Your task to perform on an android device: open chrome privacy settings Image 0: 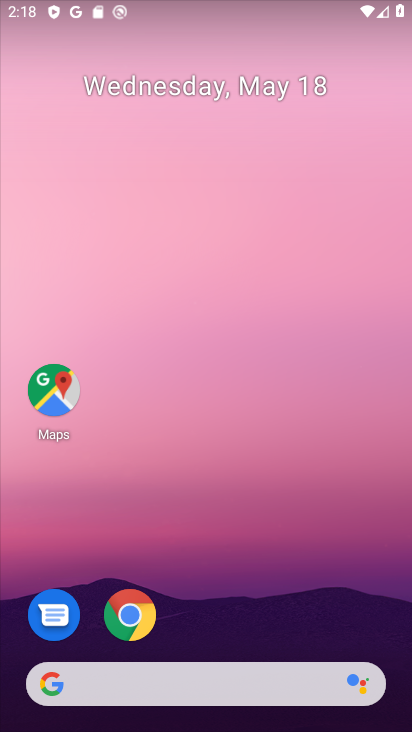
Step 0: press home button
Your task to perform on an android device: open chrome privacy settings Image 1: 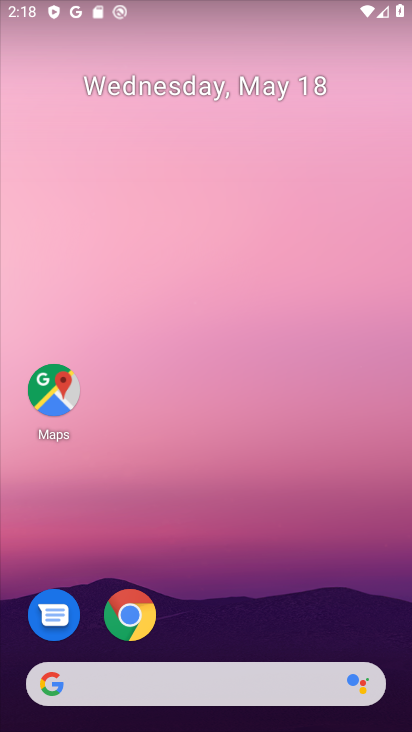
Step 1: click (133, 613)
Your task to perform on an android device: open chrome privacy settings Image 2: 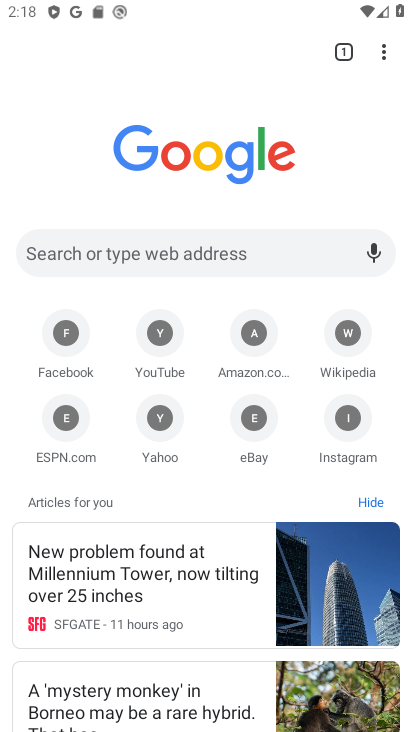
Step 2: click (383, 52)
Your task to perform on an android device: open chrome privacy settings Image 3: 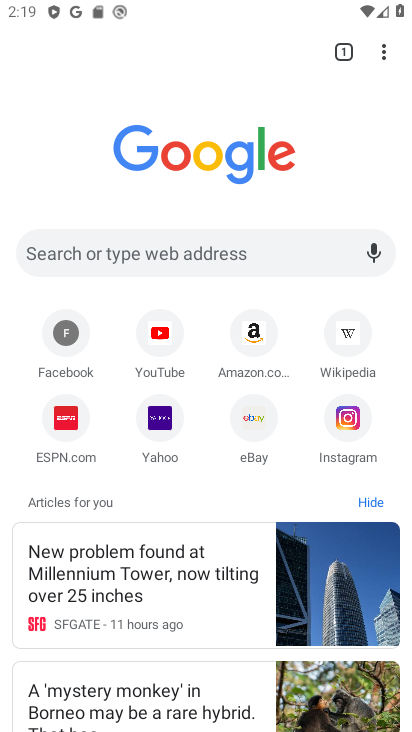
Step 3: click (382, 49)
Your task to perform on an android device: open chrome privacy settings Image 4: 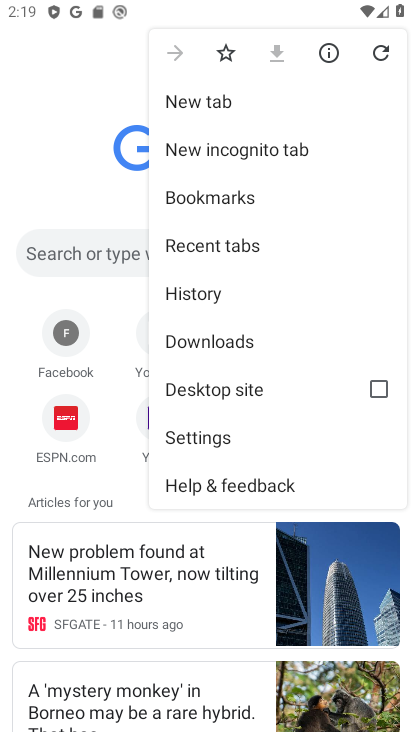
Step 4: click (218, 432)
Your task to perform on an android device: open chrome privacy settings Image 5: 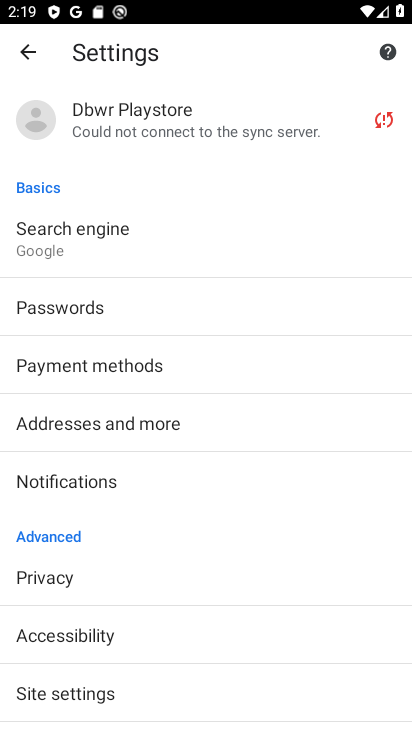
Step 5: task complete